Your task to perform on an android device: turn on location history Image 0: 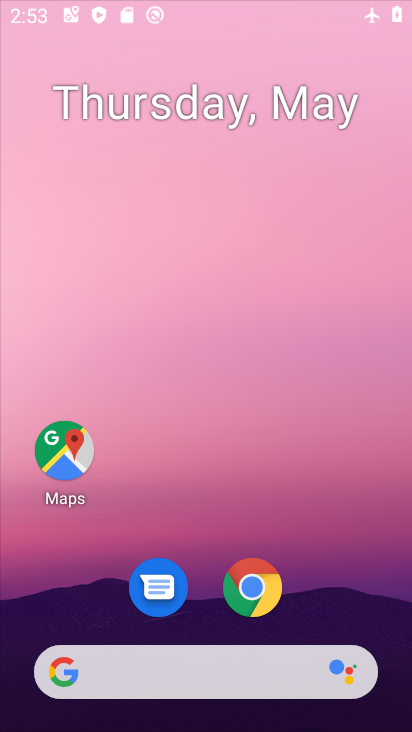
Step 0: drag from (290, 626) to (290, 163)
Your task to perform on an android device: turn on location history Image 1: 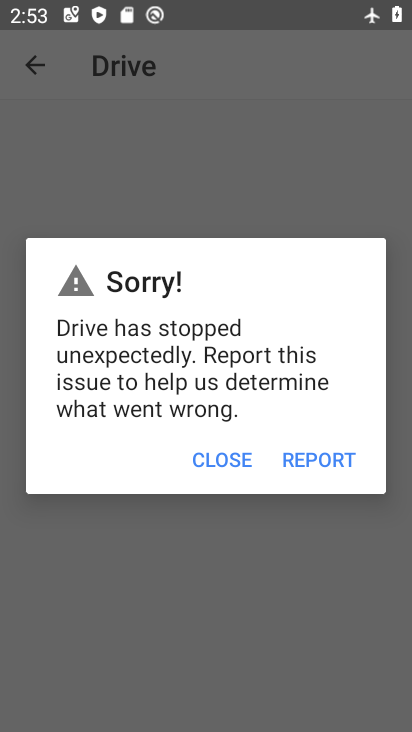
Step 1: press home button
Your task to perform on an android device: turn on location history Image 2: 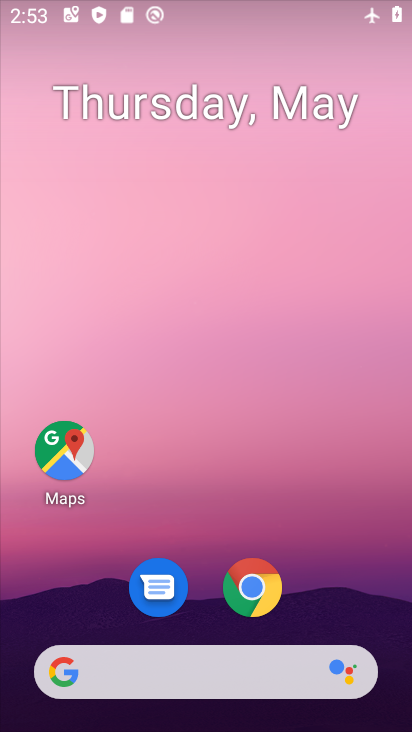
Step 2: drag from (197, 601) to (203, 276)
Your task to perform on an android device: turn on location history Image 3: 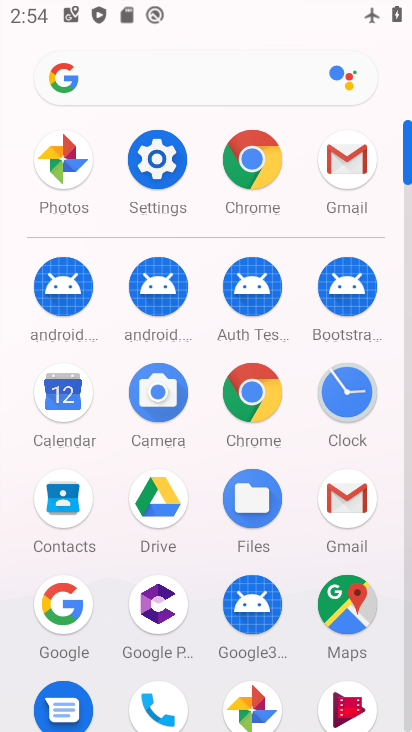
Step 3: click (178, 158)
Your task to perform on an android device: turn on location history Image 4: 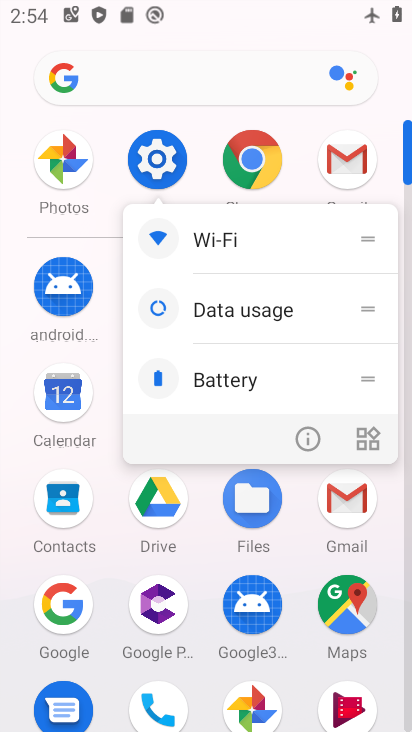
Step 4: click (146, 152)
Your task to perform on an android device: turn on location history Image 5: 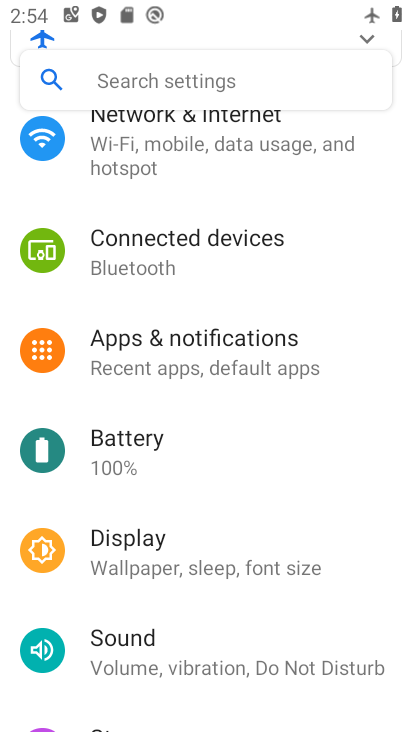
Step 5: drag from (163, 546) to (258, 55)
Your task to perform on an android device: turn on location history Image 6: 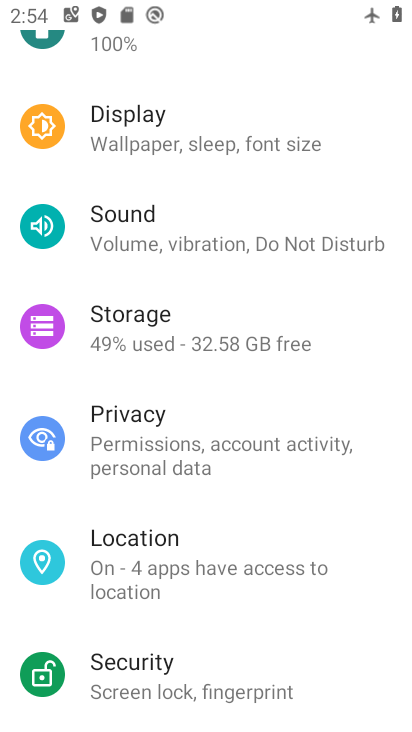
Step 6: click (273, 559)
Your task to perform on an android device: turn on location history Image 7: 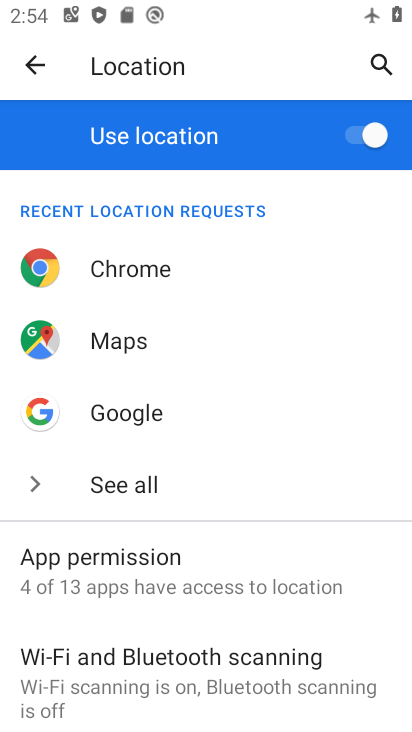
Step 7: drag from (262, 574) to (283, 222)
Your task to perform on an android device: turn on location history Image 8: 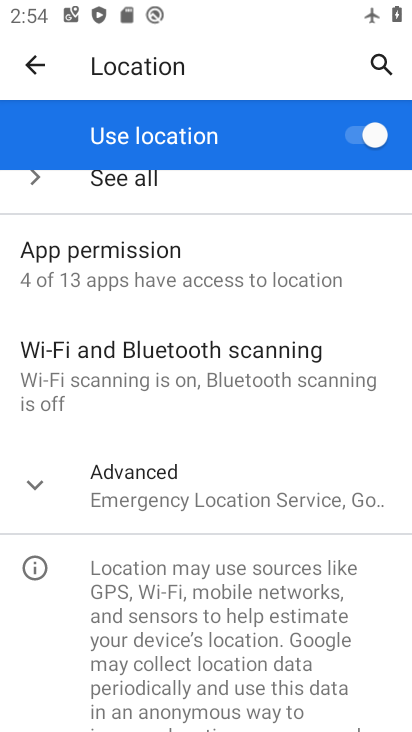
Step 8: click (179, 498)
Your task to perform on an android device: turn on location history Image 9: 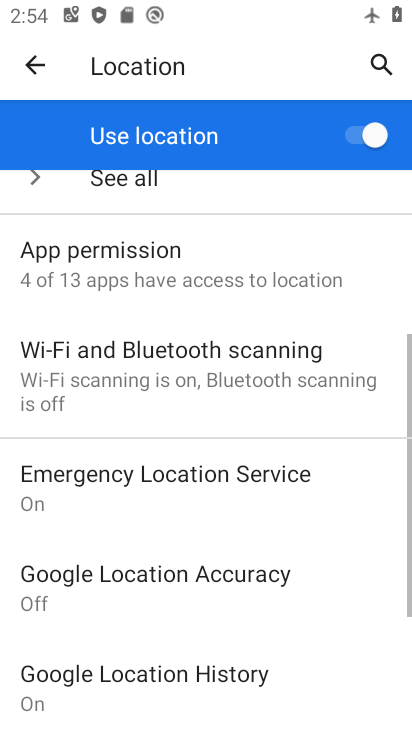
Step 9: drag from (195, 608) to (238, 248)
Your task to perform on an android device: turn on location history Image 10: 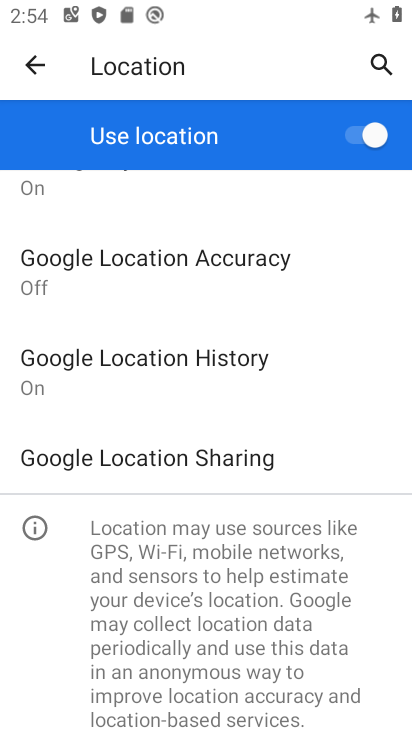
Step 10: click (268, 372)
Your task to perform on an android device: turn on location history Image 11: 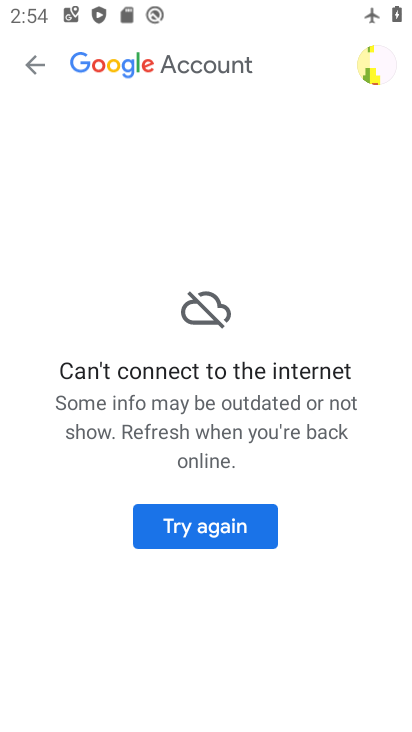
Step 11: task complete